Your task to perform on an android device: Go to Reddit.com Image 0: 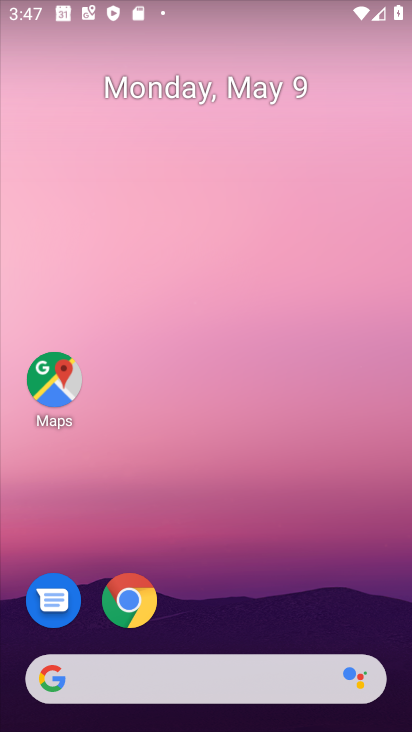
Step 0: drag from (314, 647) to (325, 105)
Your task to perform on an android device: Go to Reddit.com Image 1: 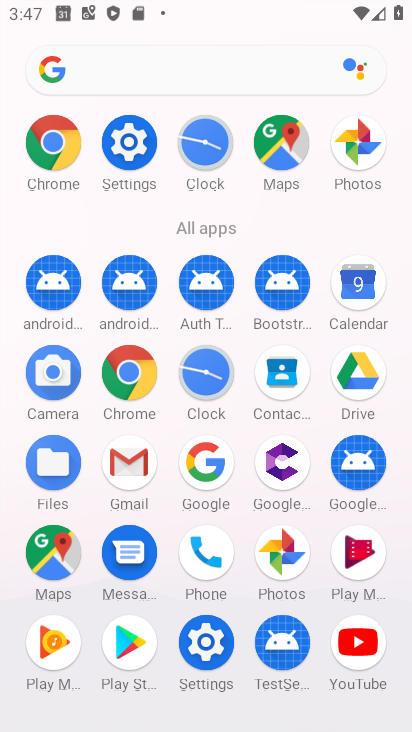
Step 1: click (145, 378)
Your task to perform on an android device: Go to Reddit.com Image 2: 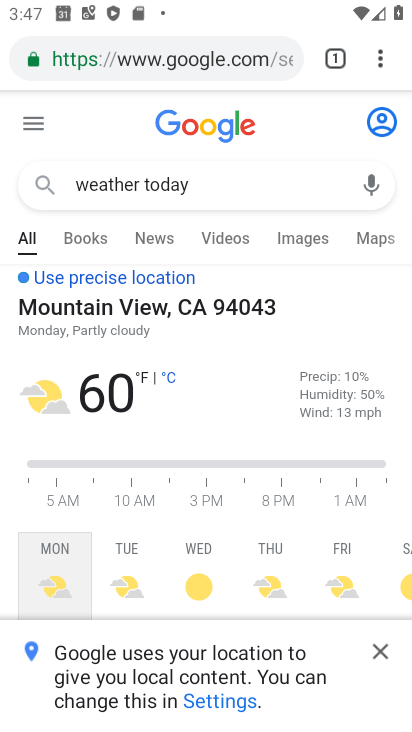
Step 2: click (243, 59)
Your task to perform on an android device: Go to Reddit.com Image 3: 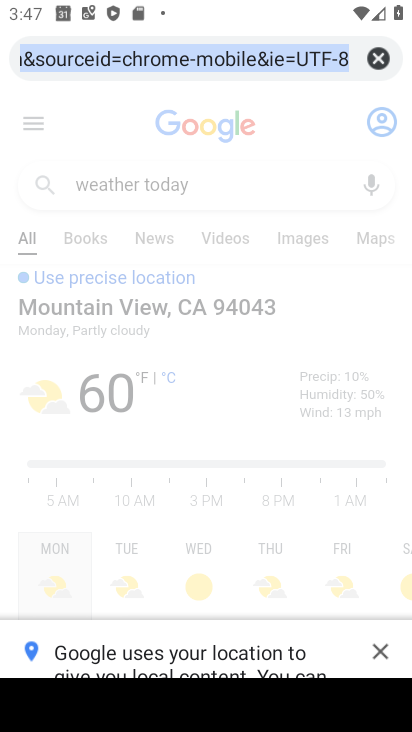
Step 3: click (372, 58)
Your task to perform on an android device: Go to Reddit.com Image 4: 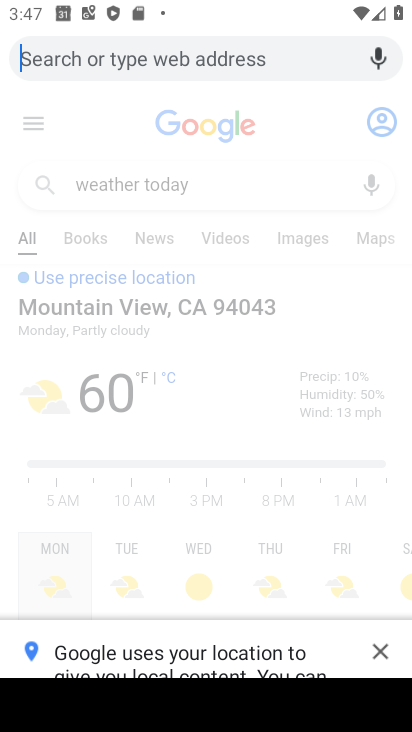
Step 4: type "reddit.com"
Your task to perform on an android device: Go to Reddit.com Image 5: 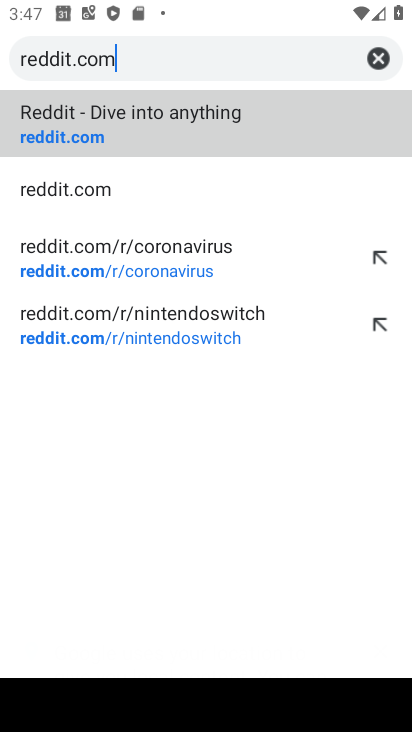
Step 5: click (233, 145)
Your task to perform on an android device: Go to Reddit.com Image 6: 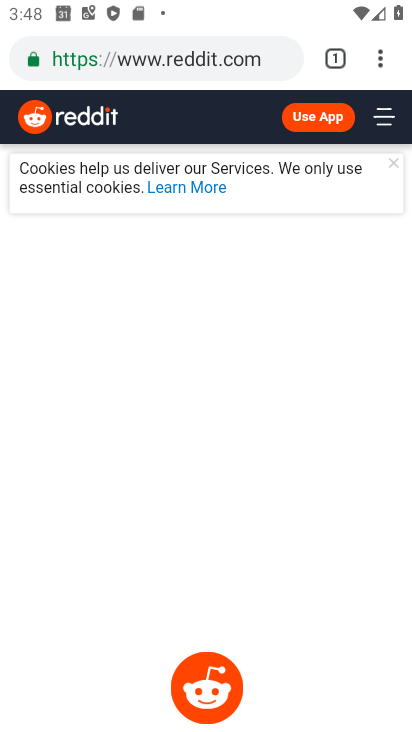
Step 6: task complete